Your task to perform on an android device: Open network settings Image 0: 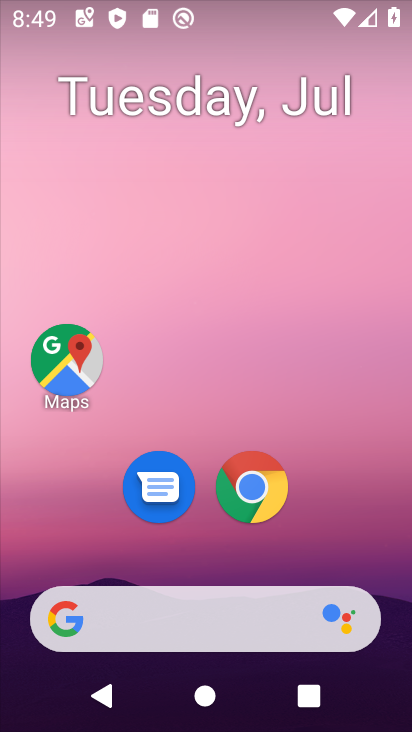
Step 0: drag from (125, 570) to (295, 9)
Your task to perform on an android device: Open network settings Image 1: 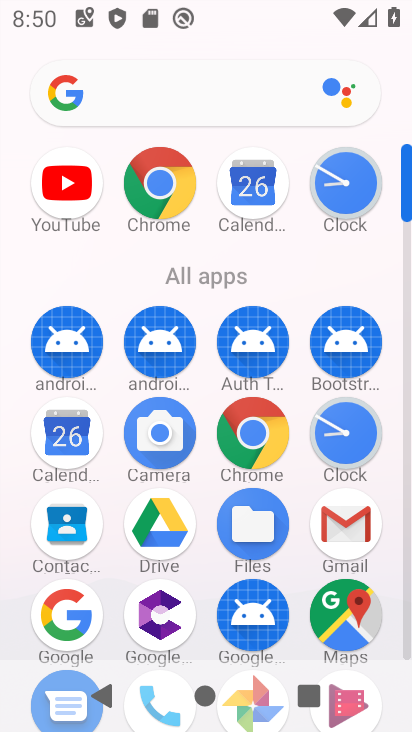
Step 1: drag from (179, 653) to (301, 117)
Your task to perform on an android device: Open network settings Image 2: 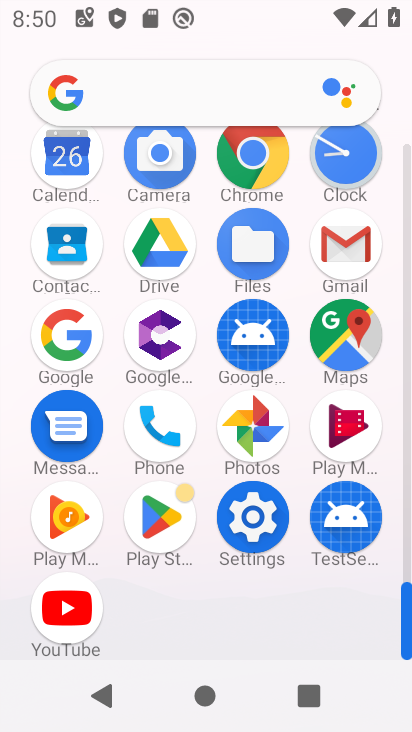
Step 2: click (256, 510)
Your task to perform on an android device: Open network settings Image 3: 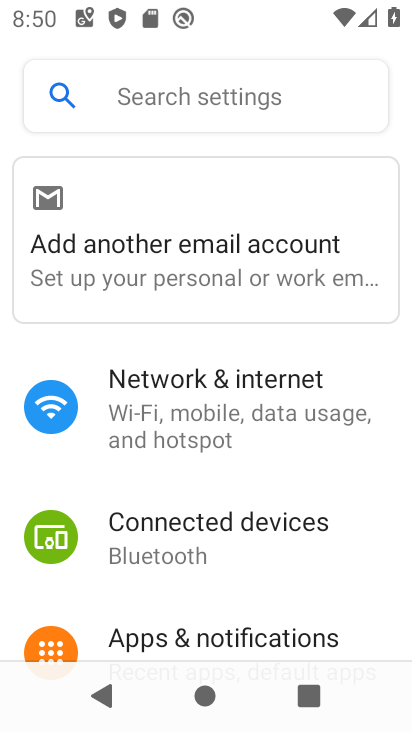
Step 3: click (248, 390)
Your task to perform on an android device: Open network settings Image 4: 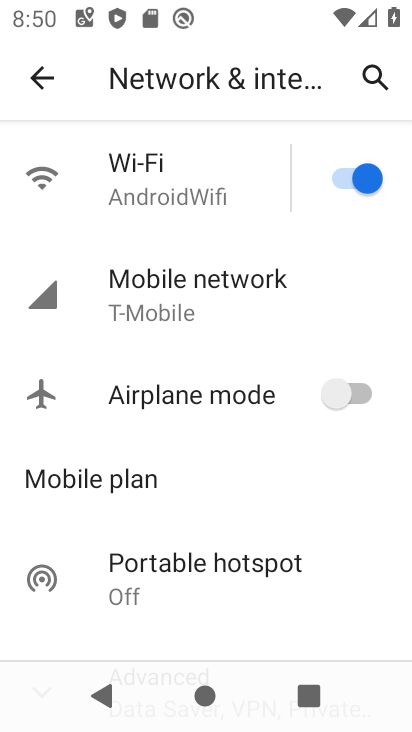
Step 4: task complete